Your task to perform on an android device: What's on my calendar today? Image 0: 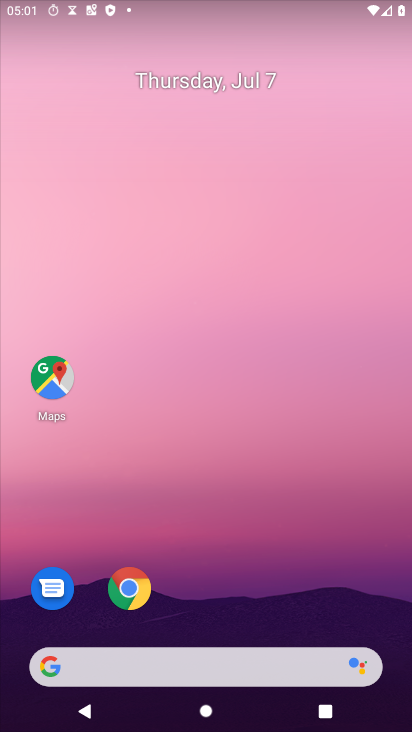
Step 0: press home button
Your task to perform on an android device: What's on my calendar today? Image 1: 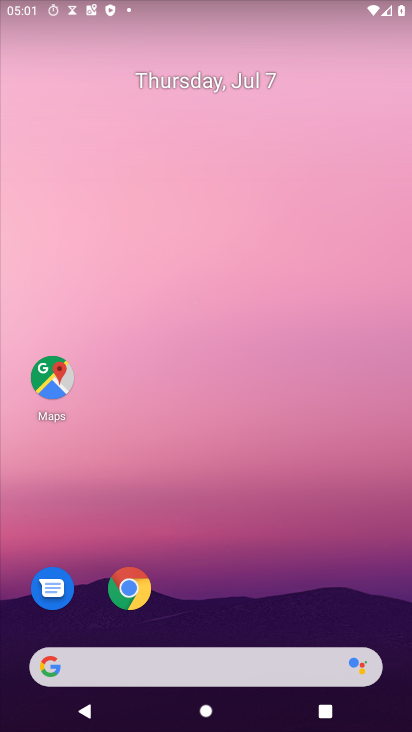
Step 1: drag from (226, 619) to (253, 202)
Your task to perform on an android device: What's on my calendar today? Image 2: 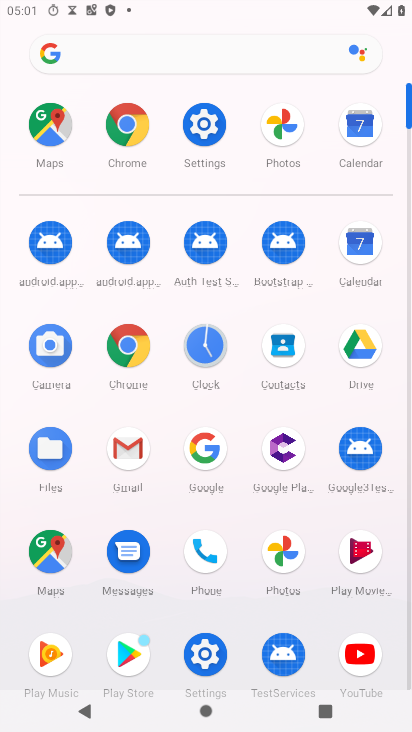
Step 2: click (364, 255)
Your task to perform on an android device: What's on my calendar today? Image 3: 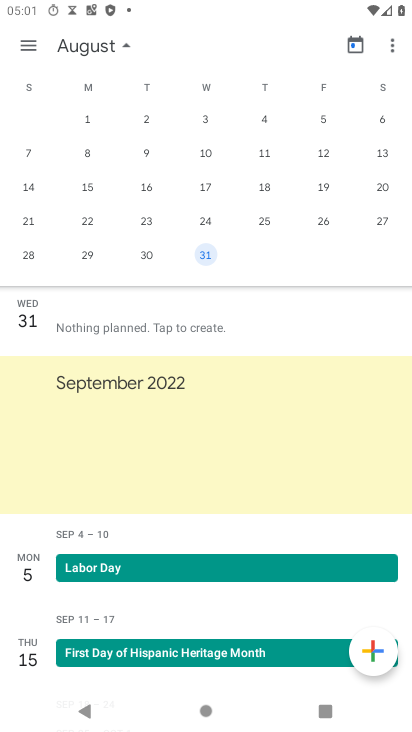
Step 3: drag from (201, 177) to (405, 164)
Your task to perform on an android device: What's on my calendar today? Image 4: 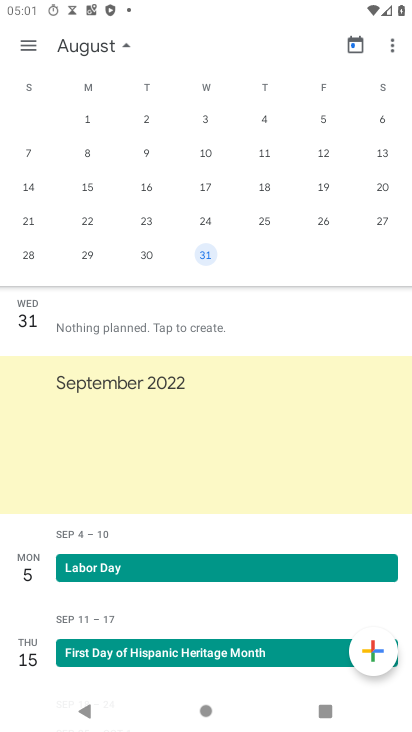
Step 4: drag from (128, 158) to (409, 153)
Your task to perform on an android device: What's on my calendar today? Image 5: 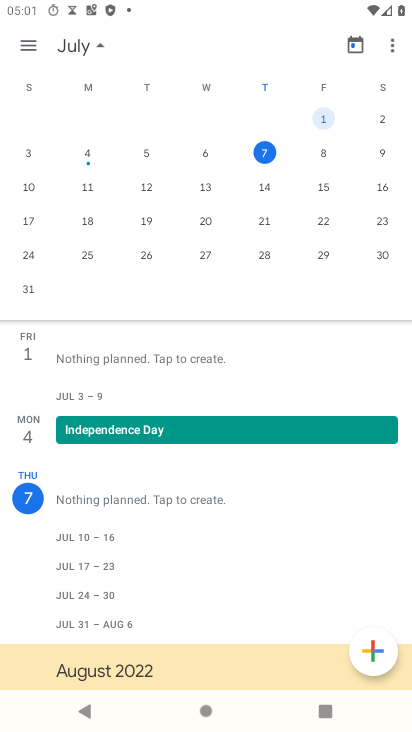
Step 5: click (269, 154)
Your task to perform on an android device: What's on my calendar today? Image 6: 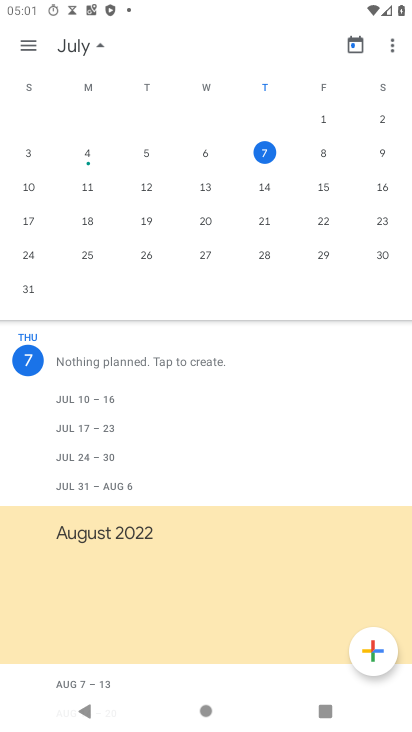
Step 6: task complete